Your task to perform on an android device: change notifications settings Image 0: 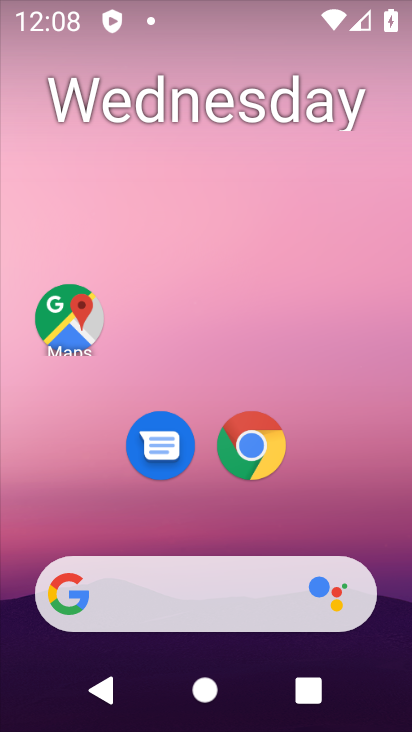
Step 0: drag from (215, 526) to (282, 144)
Your task to perform on an android device: change notifications settings Image 1: 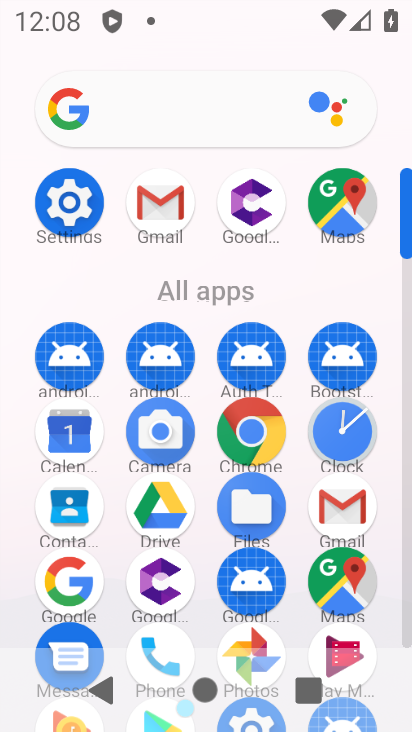
Step 1: click (67, 206)
Your task to perform on an android device: change notifications settings Image 2: 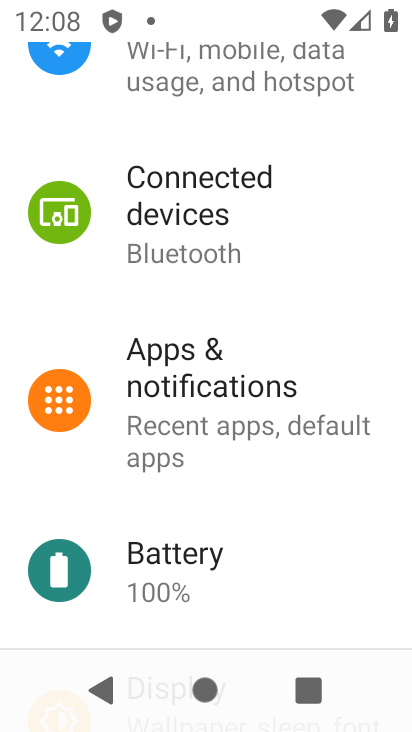
Step 2: drag from (197, 212) to (290, 343)
Your task to perform on an android device: change notifications settings Image 3: 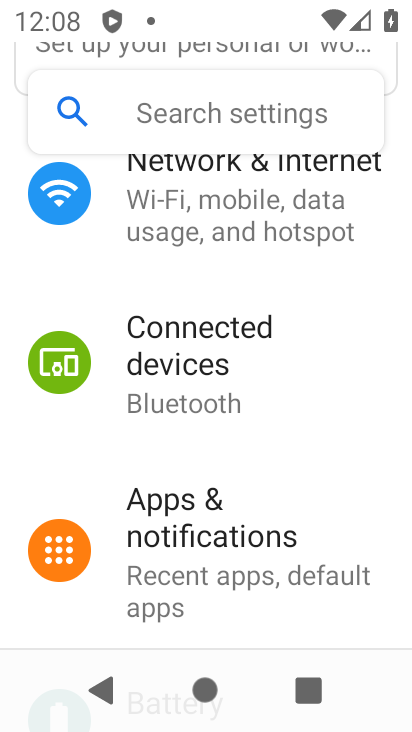
Step 3: click (206, 520)
Your task to perform on an android device: change notifications settings Image 4: 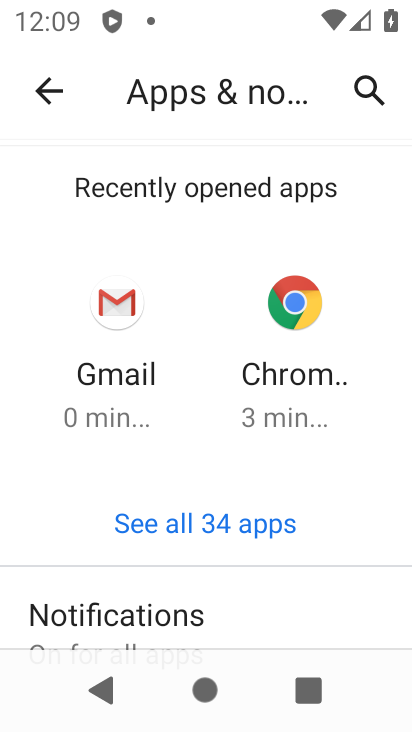
Step 4: task complete